Your task to perform on an android device: Go to eBay Image 0: 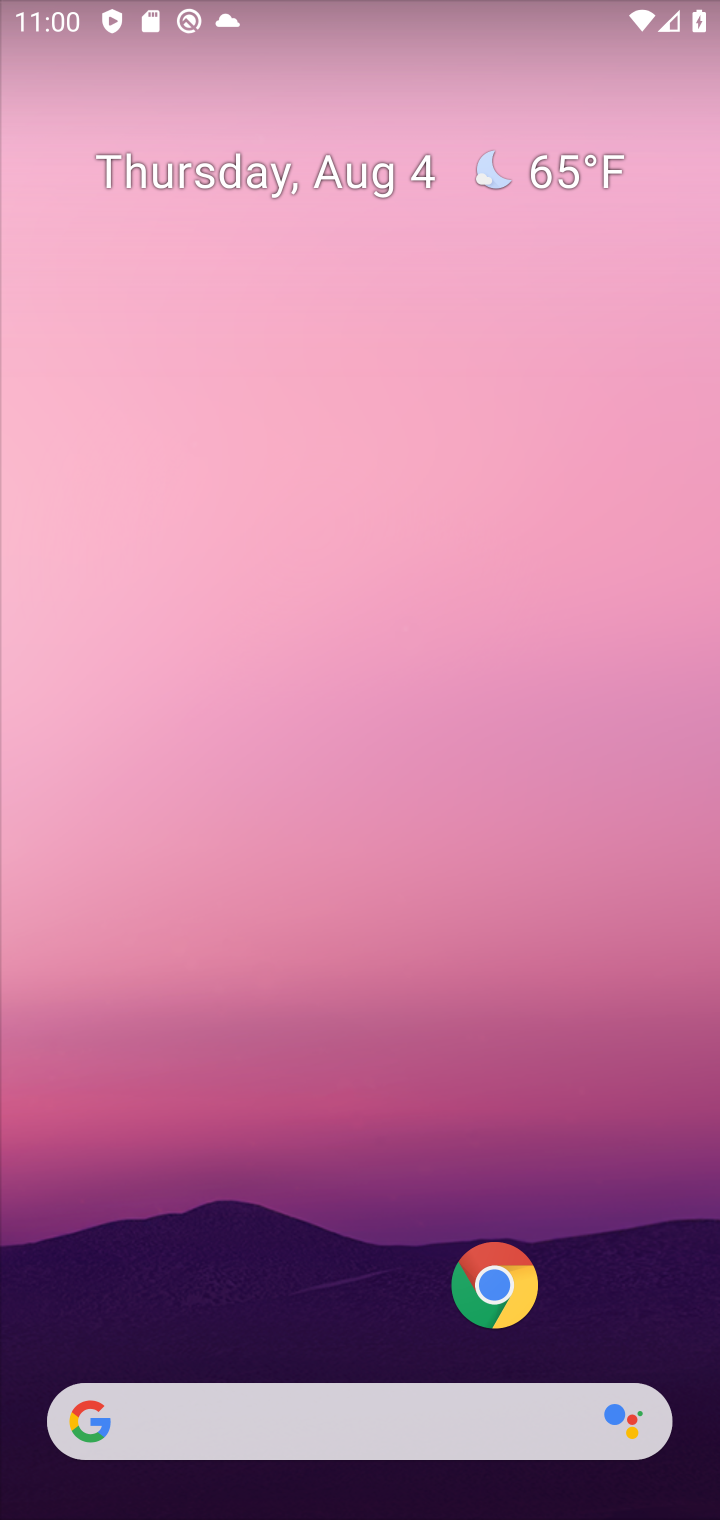
Step 0: click (497, 1274)
Your task to perform on an android device: Go to eBay Image 1: 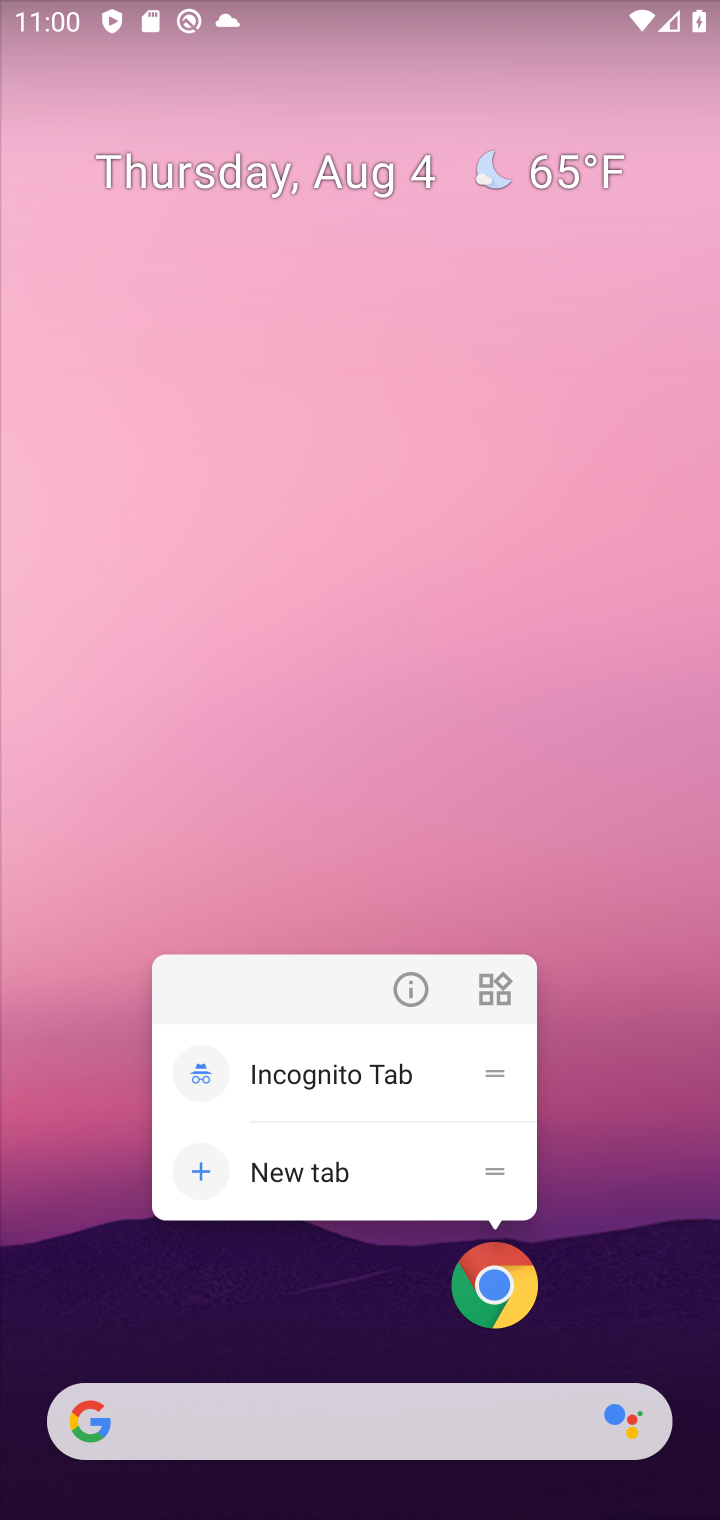
Step 1: click (497, 1273)
Your task to perform on an android device: Go to eBay Image 2: 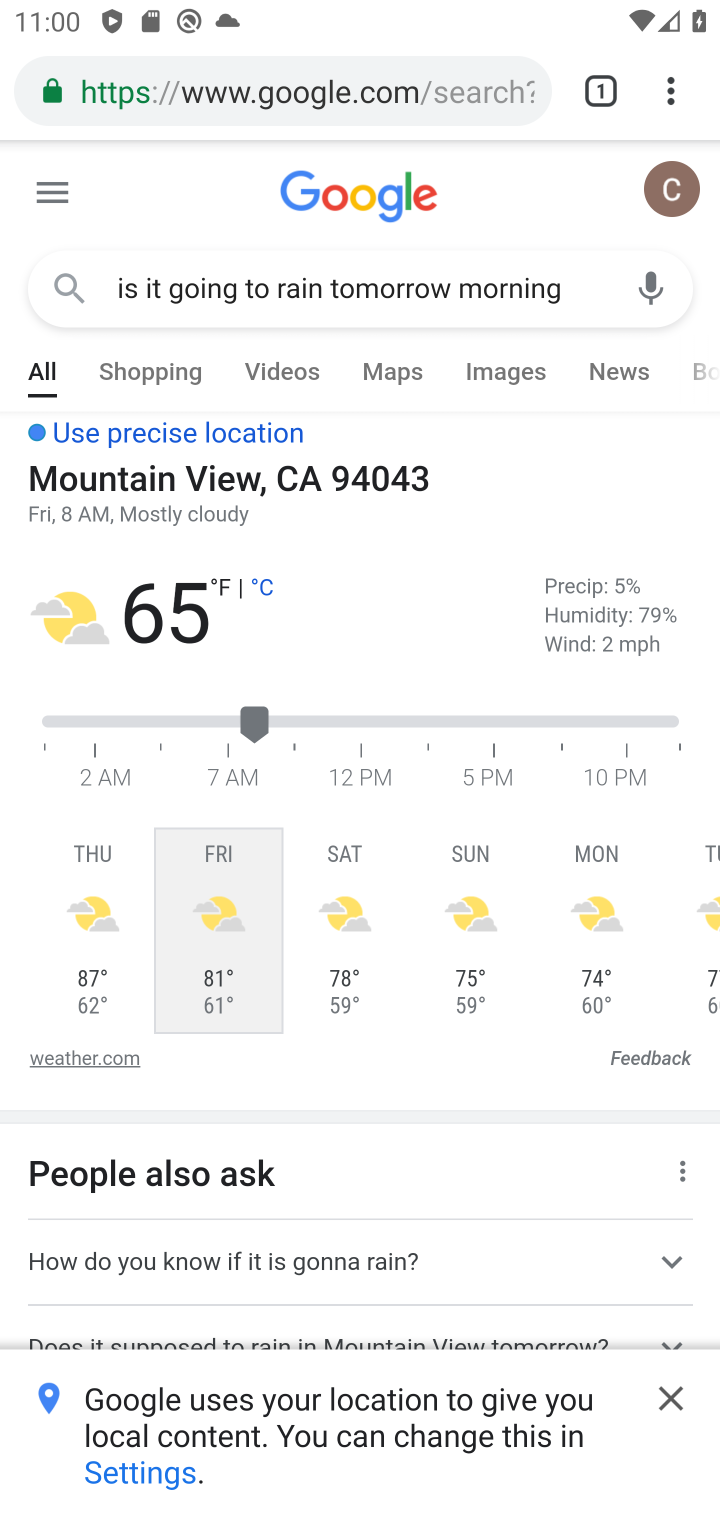
Step 2: click (245, 89)
Your task to perform on an android device: Go to eBay Image 3: 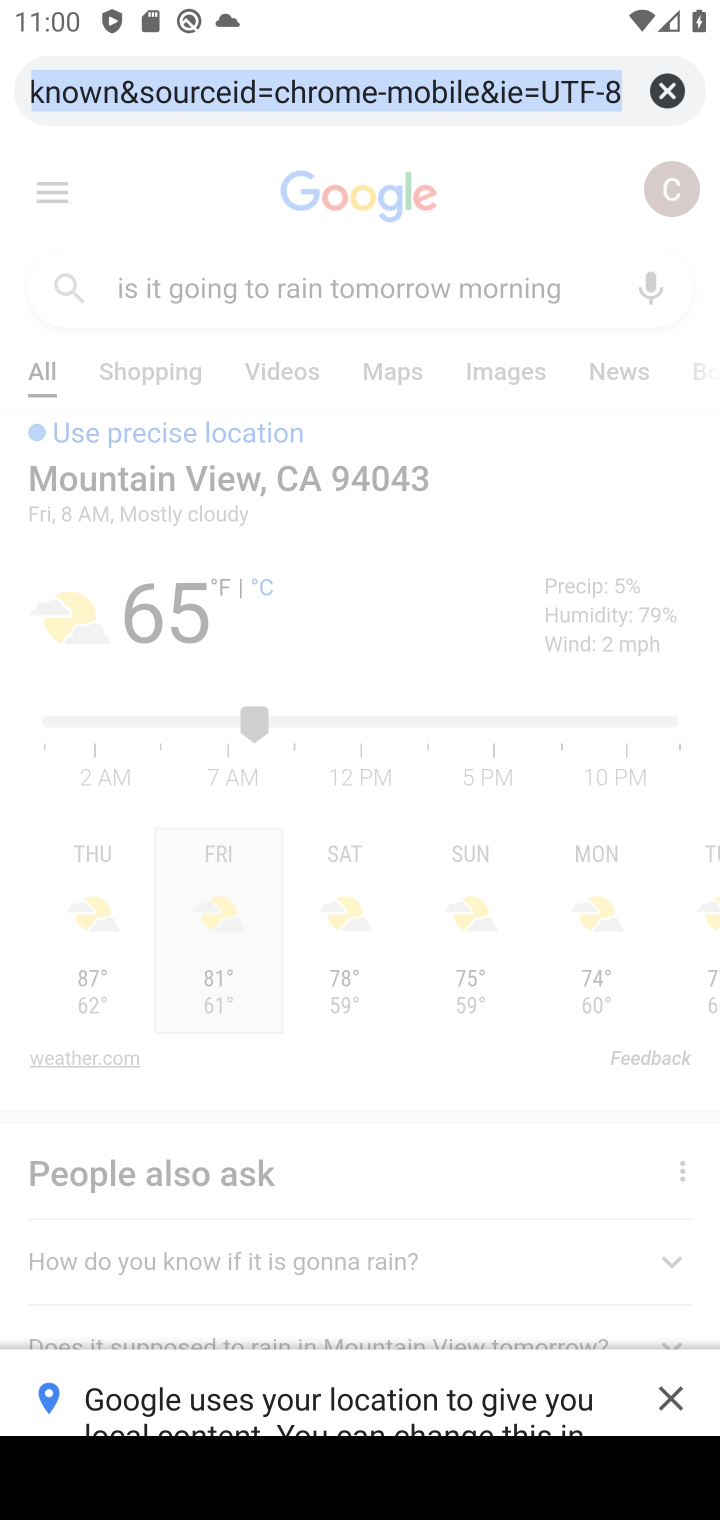
Step 3: type "eBay"
Your task to perform on an android device: Go to eBay Image 4: 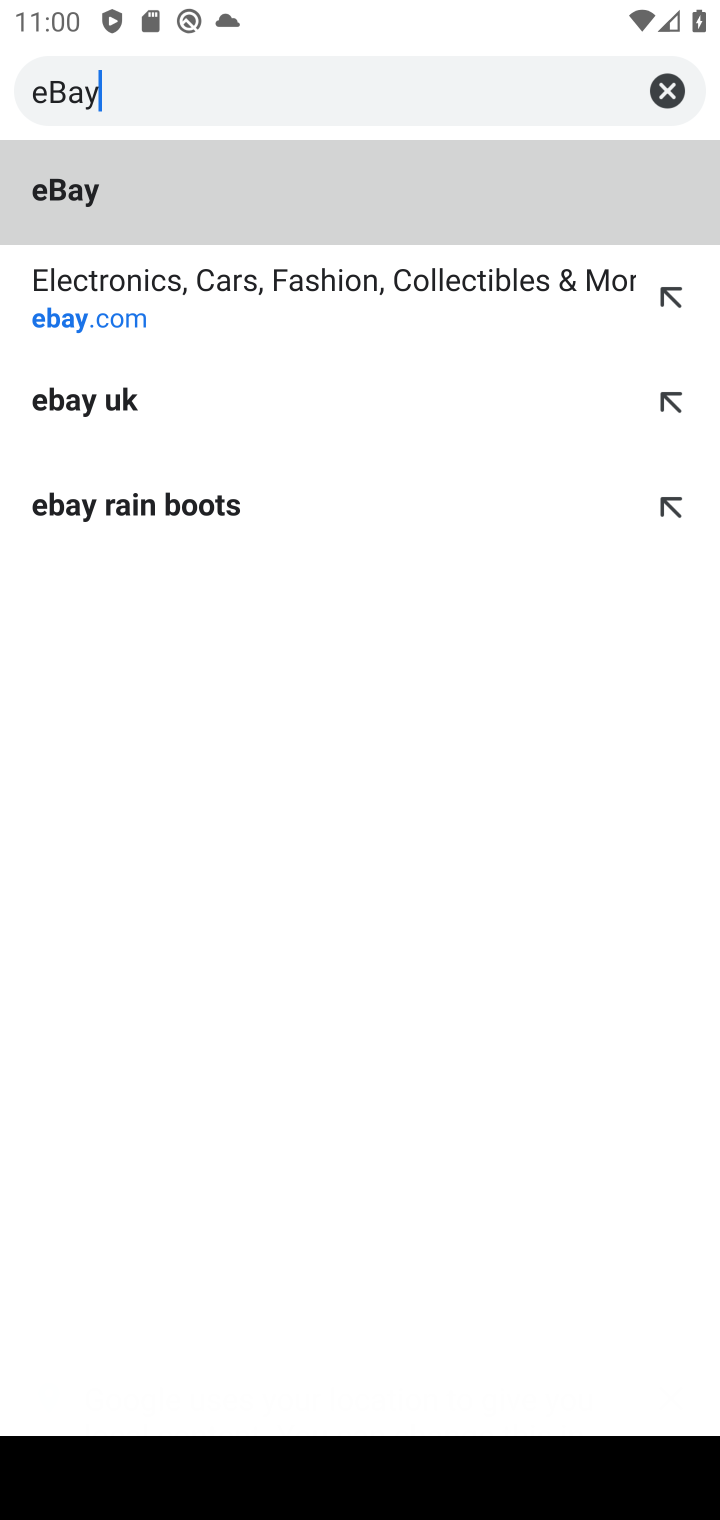
Step 4: click (34, 310)
Your task to perform on an android device: Go to eBay Image 5: 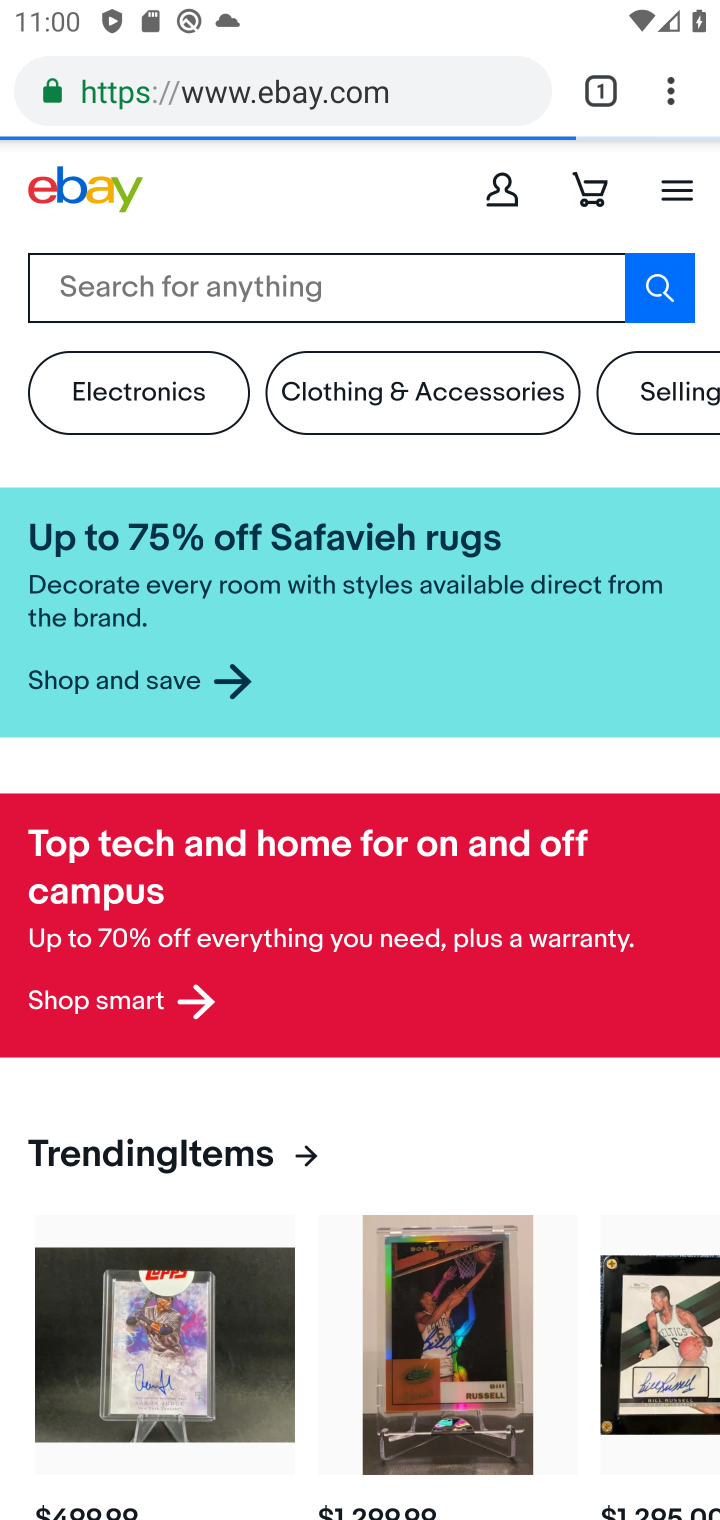
Step 5: task complete